Your task to perform on an android device: change the clock display to show seconds Image 0: 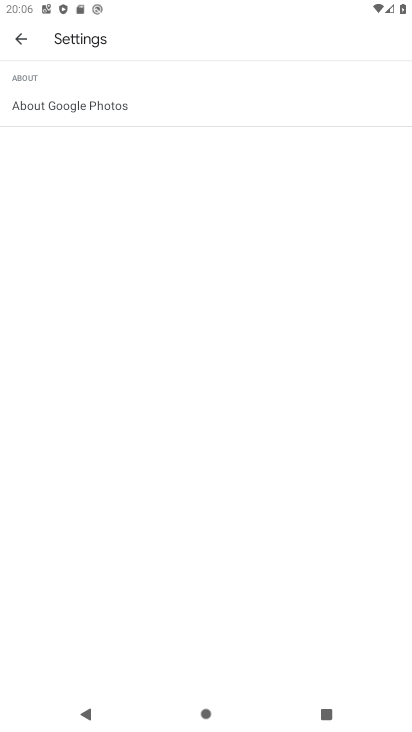
Step 0: press home button
Your task to perform on an android device: change the clock display to show seconds Image 1: 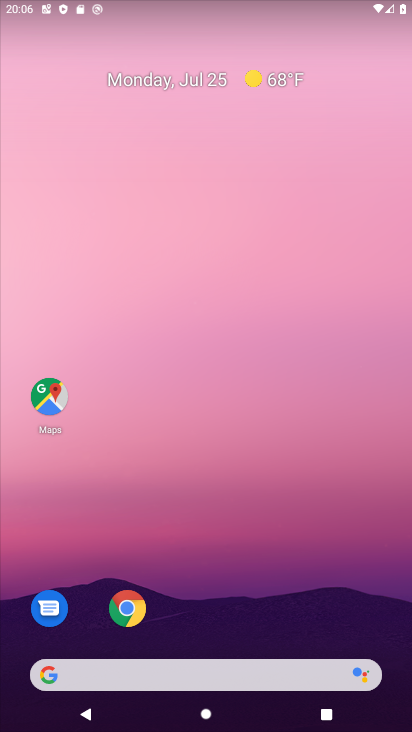
Step 1: drag from (228, 636) to (223, 9)
Your task to perform on an android device: change the clock display to show seconds Image 2: 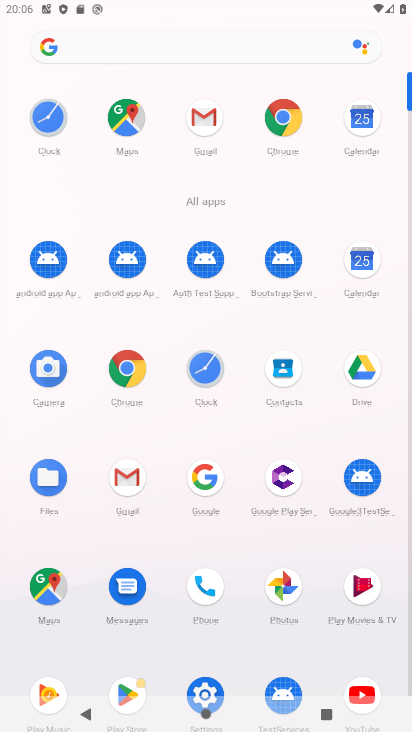
Step 2: click (217, 374)
Your task to perform on an android device: change the clock display to show seconds Image 3: 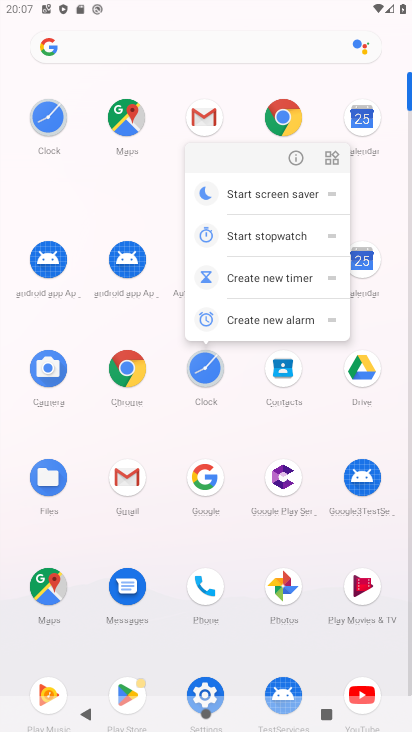
Step 3: click (199, 372)
Your task to perform on an android device: change the clock display to show seconds Image 4: 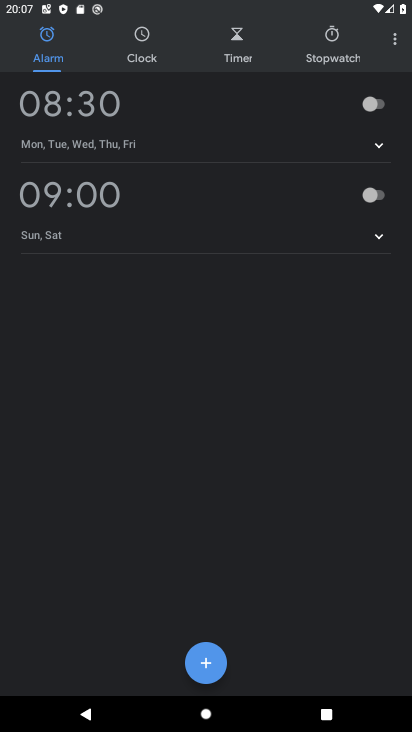
Step 4: click (392, 44)
Your task to perform on an android device: change the clock display to show seconds Image 5: 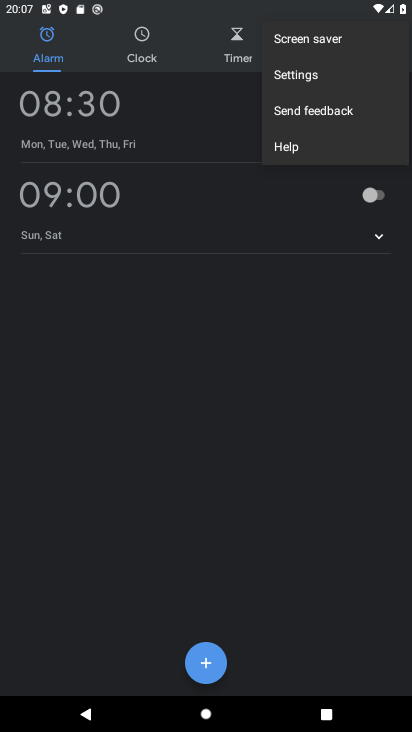
Step 5: click (321, 77)
Your task to perform on an android device: change the clock display to show seconds Image 6: 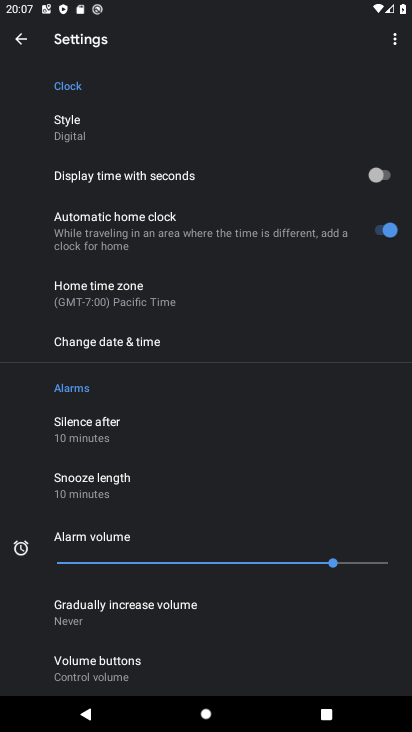
Step 6: click (390, 180)
Your task to perform on an android device: change the clock display to show seconds Image 7: 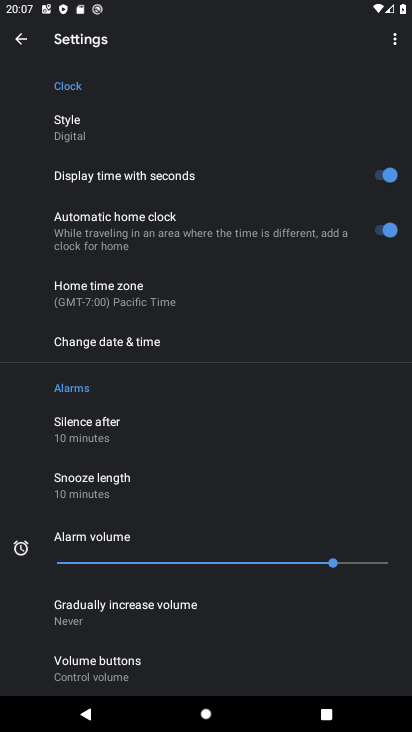
Step 7: task complete